Your task to perform on an android device: Open eBay Image 0: 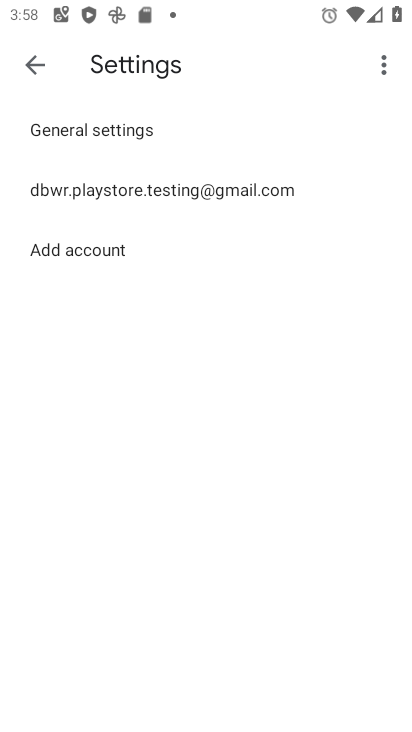
Step 0: click (344, 353)
Your task to perform on an android device: Open eBay Image 1: 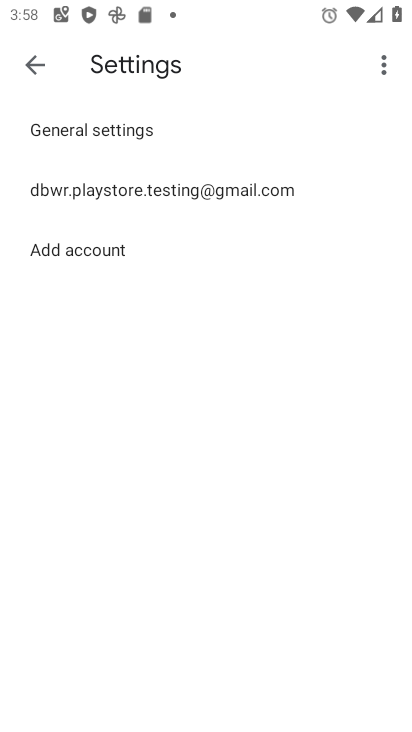
Step 1: press home button
Your task to perform on an android device: Open eBay Image 2: 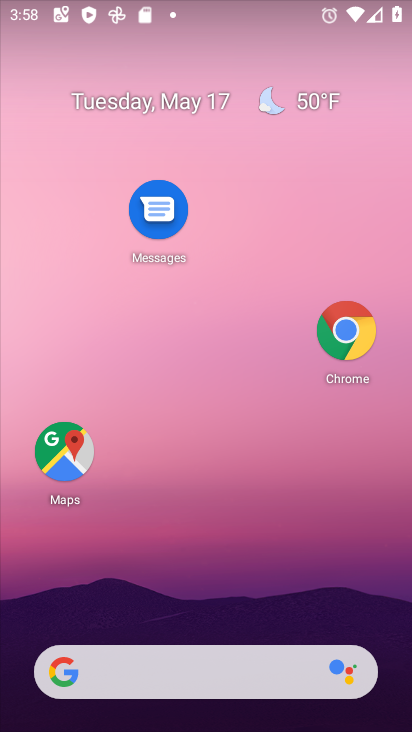
Step 2: click (372, 327)
Your task to perform on an android device: Open eBay Image 3: 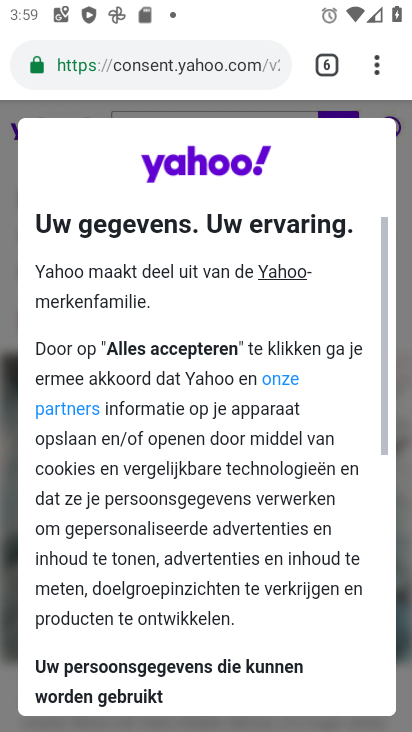
Step 3: click (236, 93)
Your task to perform on an android device: Open eBay Image 4: 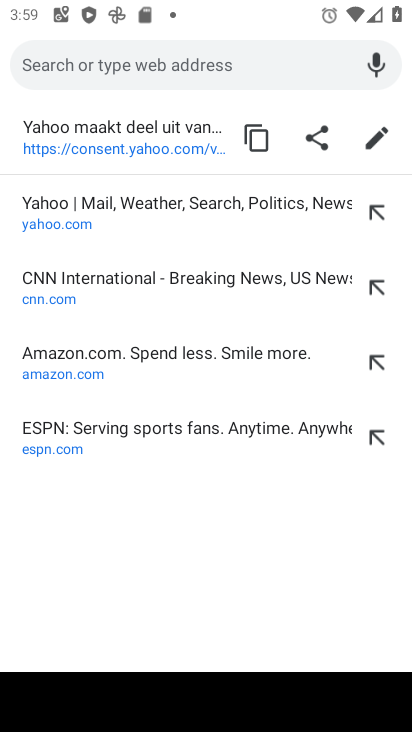
Step 4: type "ebay.com"
Your task to perform on an android device: Open eBay Image 5: 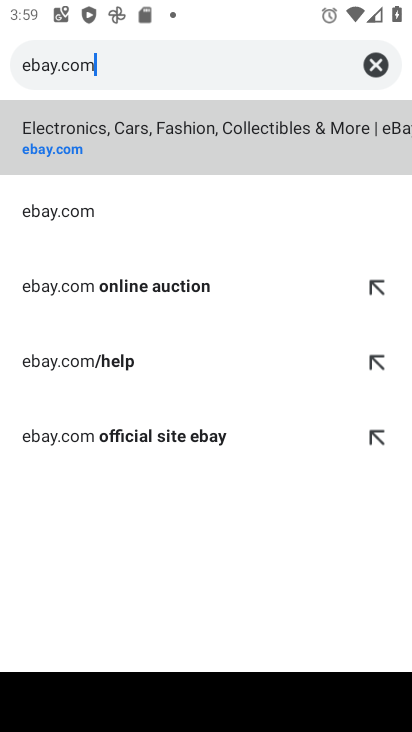
Step 5: click (197, 155)
Your task to perform on an android device: Open eBay Image 6: 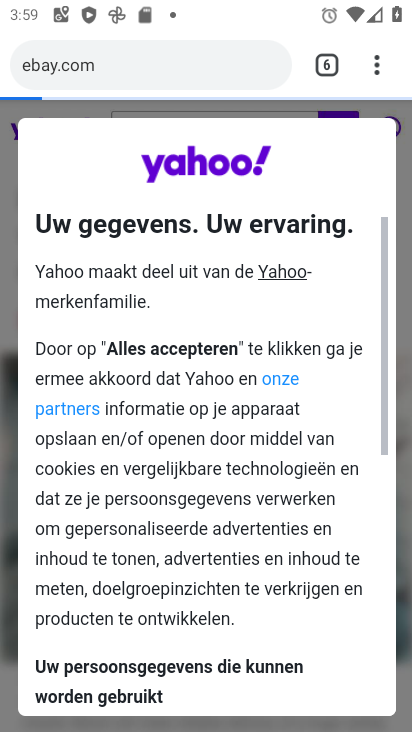
Step 6: task complete